Your task to perform on an android device: turn on improve location accuracy Image 0: 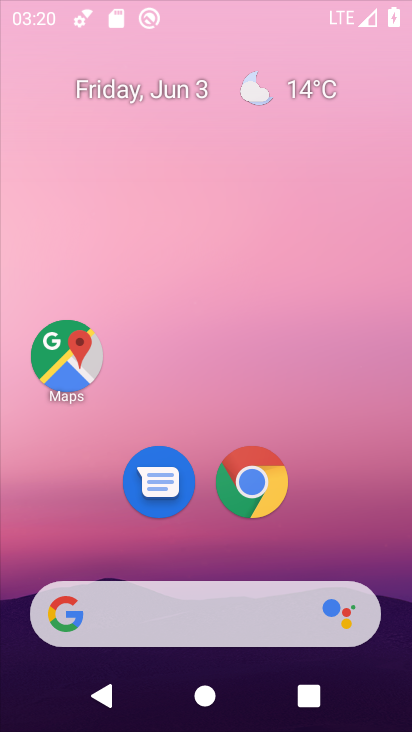
Step 0: drag from (308, 328) to (206, 6)
Your task to perform on an android device: turn on improve location accuracy Image 1: 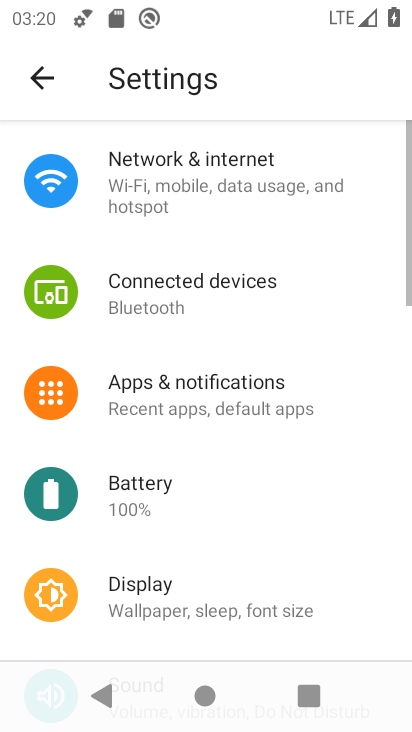
Step 1: drag from (248, 504) to (227, 11)
Your task to perform on an android device: turn on improve location accuracy Image 2: 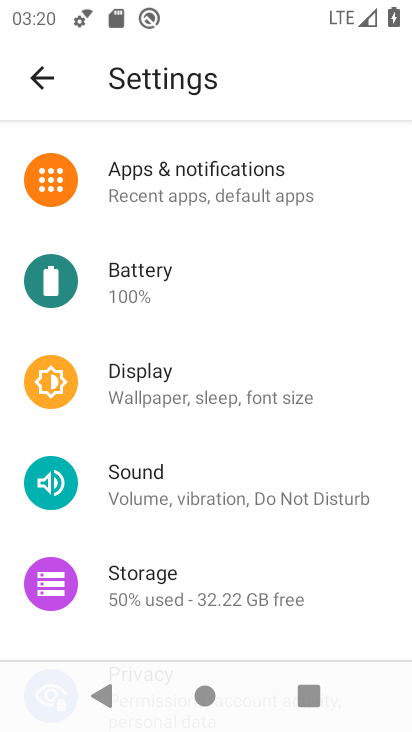
Step 2: drag from (246, 415) to (177, 26)
Your task to perform on an android device: turn on improve location accuracy Image 3: 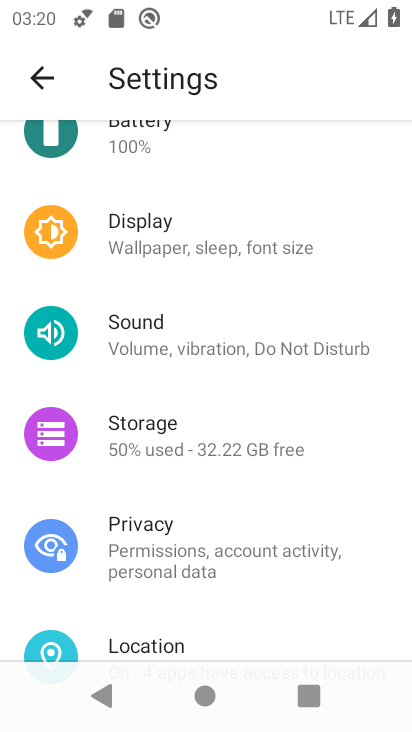
Step 3: click (220, 637)
Your task to perform on an android device: turn on improve location accuracy Image 4: 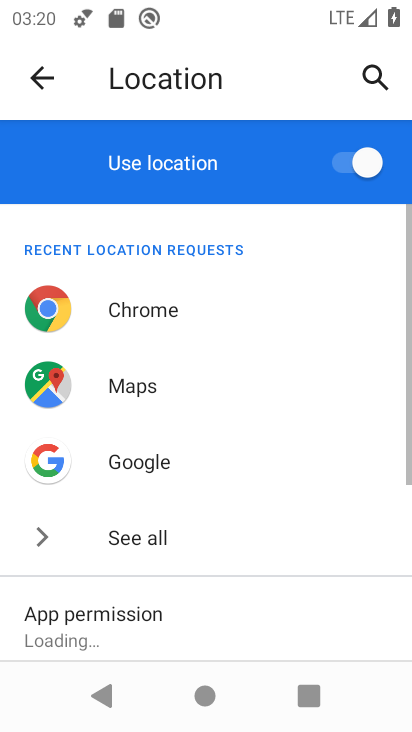
Step 4: drag from (282, 532) to (188, 43)
Your task to perform on an android device: turn on improve location accuracy Image 5: 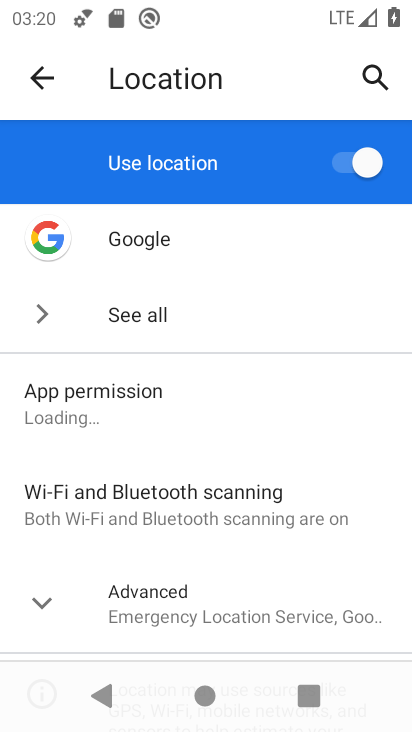
Step 5: click (245, 582)
Your task to perform on an android device: turn on improve location accuracy Image 6: 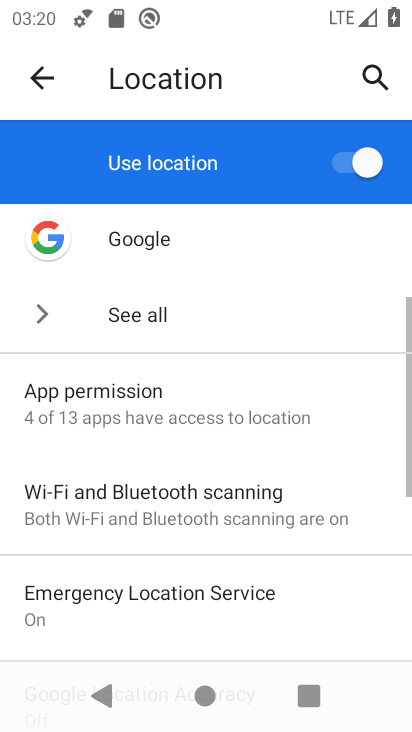
Step 6: drag from (251, 619) to (147, 56)
Your task to perform on an android device: turn on improve location accuracy Image 7: 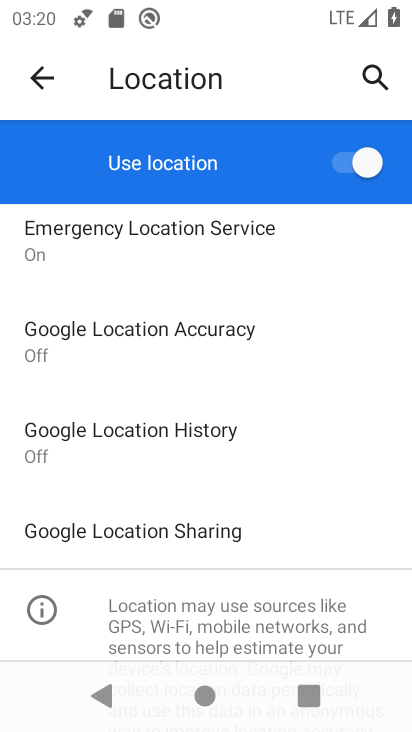
Step 7: click (195, 328)
Your task to perform on an android device: turn on improve location accuracy Image 8: 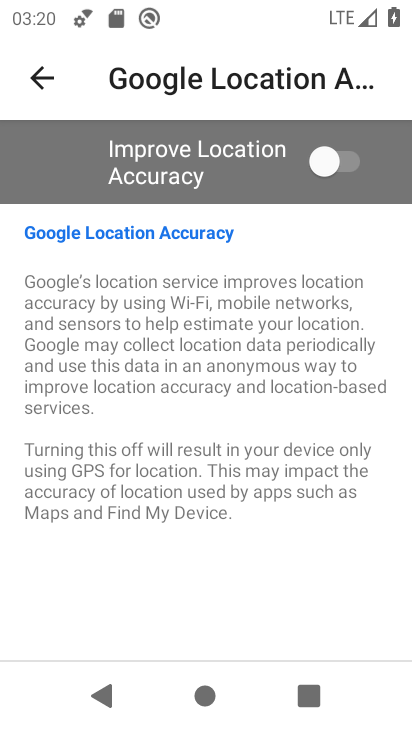
Step 8: click (344, 147)
Your task to perform on an android device: turn on improve location accuracy Image 9: 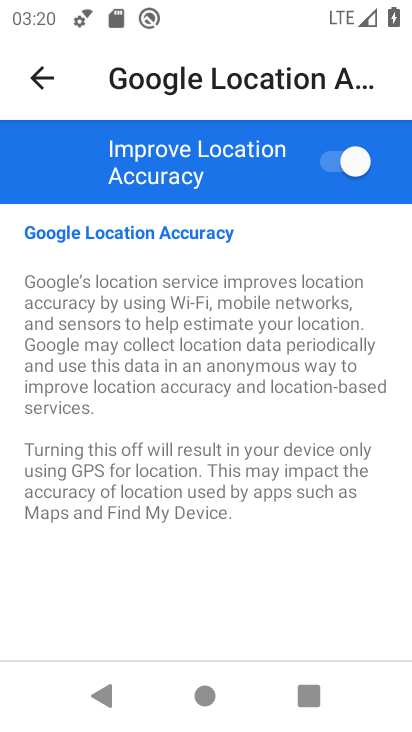
Step 9: task complete